Your task to perform on an android device: Go to calendar. Show me events next week Image 0: 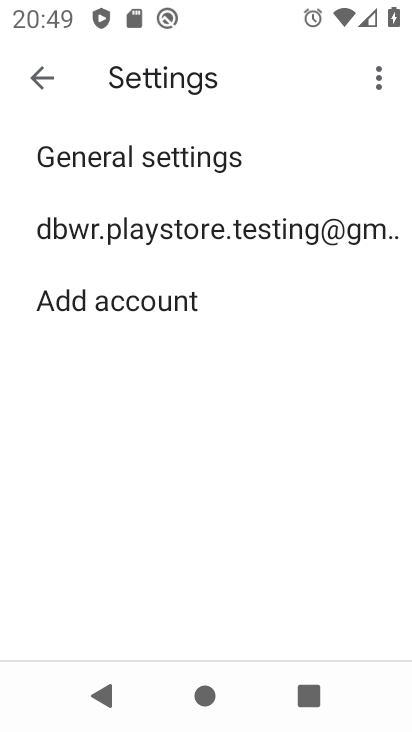
Step 0: press home button
Your task to perform on an android device: Go to calendar. Show me events next week Image 1: 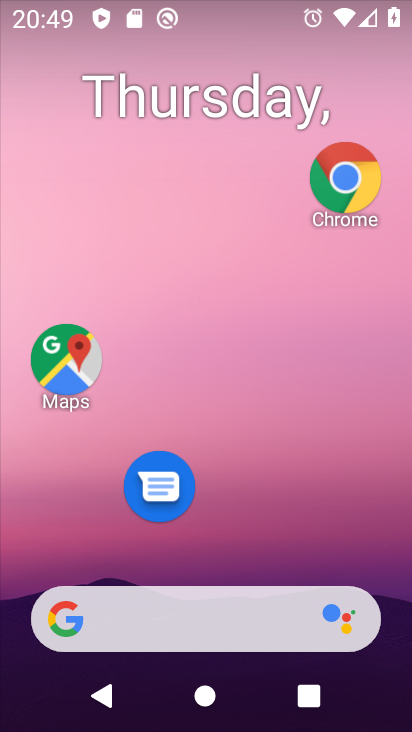
Step 1: drag from (221, 546) to (190, 20)
Your task to perform on an android device: Go to calendar. Show me events next week Image 2: 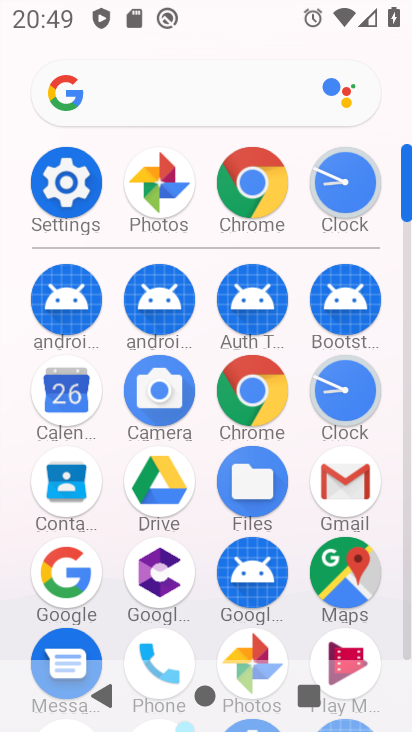
Step 2: click (64, 379)
Your task to perform on an android device: Go to calendar. Show me events next week Image 3: 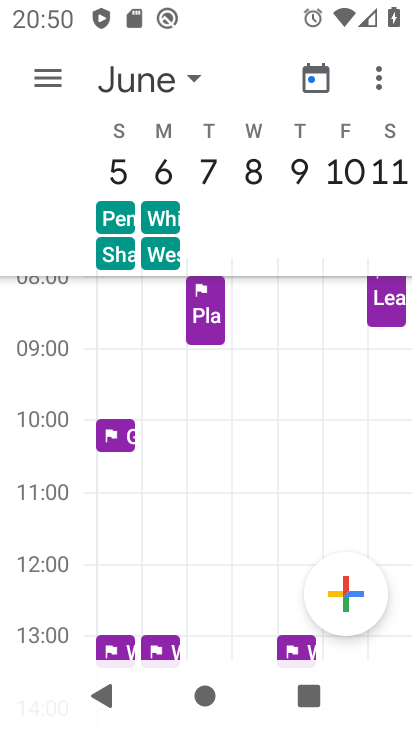
Step 3: task complete